Your task to perform on an android device: Go to internet settings Image 0: 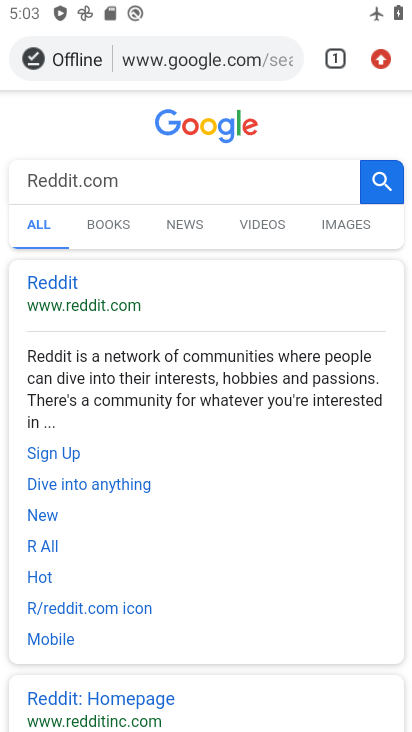
Step 0: press home button
Your task to perform on an android device: Go to internet settings Image 1: 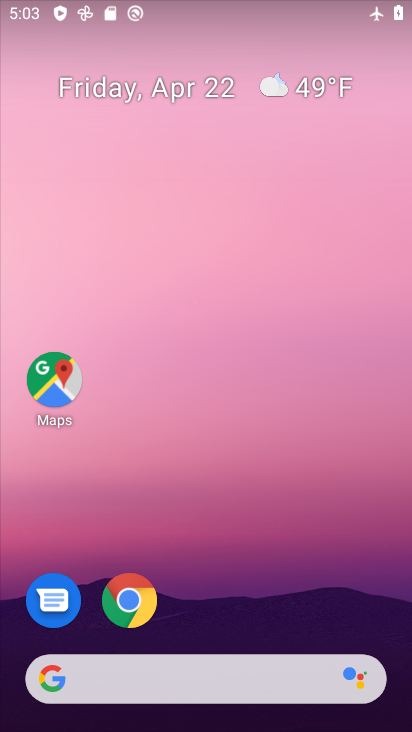
Step 1: click (130, 601)
Your task to perform on an android device: Go to internet settings Image 2: 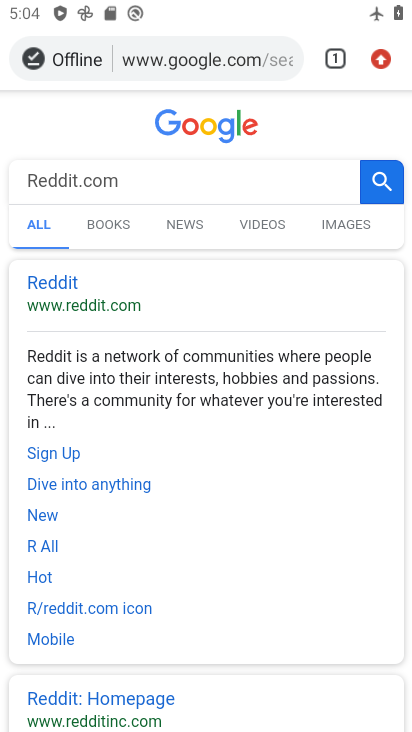
Step 2: click (381, 57)
Your task to perform on an android device: Go to internet settings Image 3: 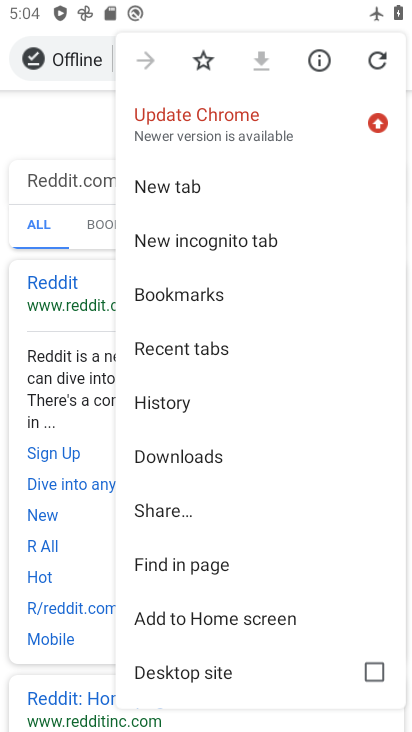
Step 3: press home button
Your task to perform on an android device: Go to internet settings Image 4: 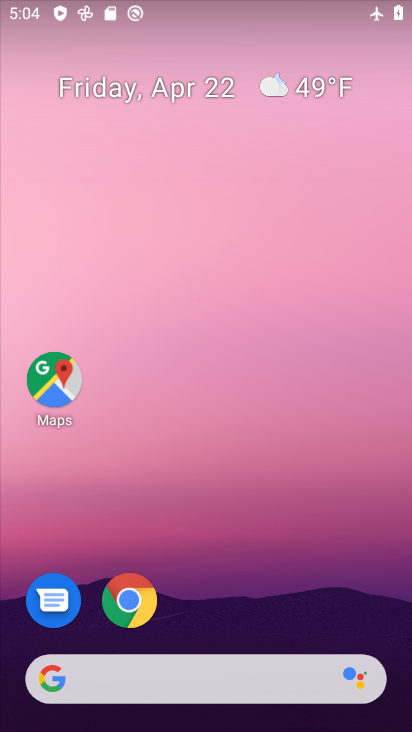
Step 4: drag from (255, 525) to (195, 34)
Your task to perform on an android device: Go to internet settings Image 5: 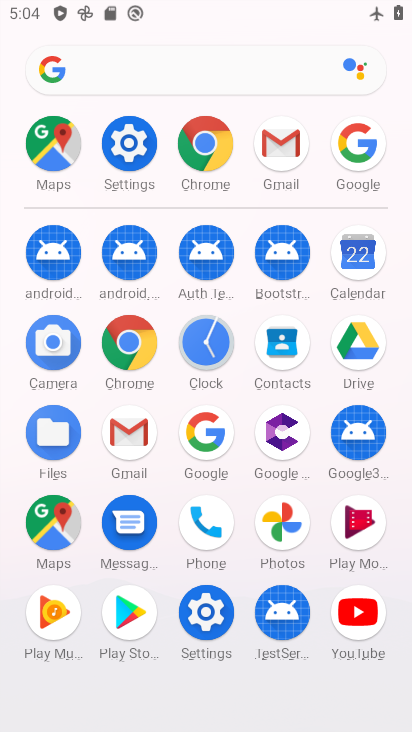
Step 5: click (127, 144)
Your task to perform on an android device: Go to internet settings Image 6: 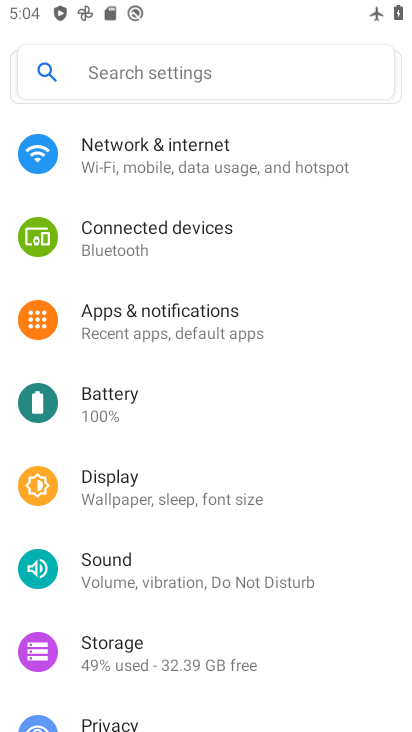
Step 6: click (181, 163)
Your task to perform on an android device: Go to internet settings Image 7: 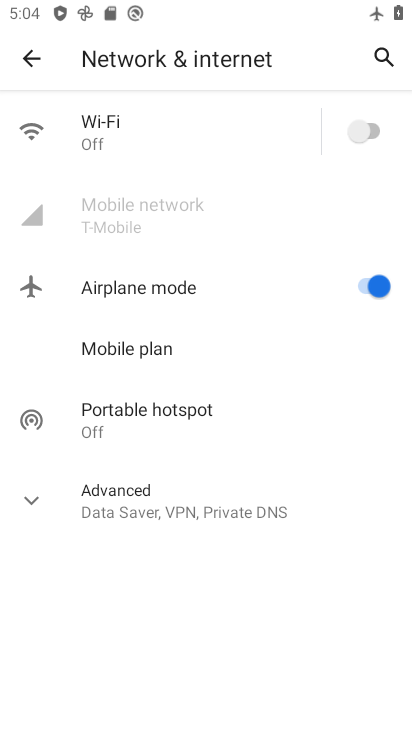
Step 7: task complete